Your task to perform on an android device: Go to settings Image 0: 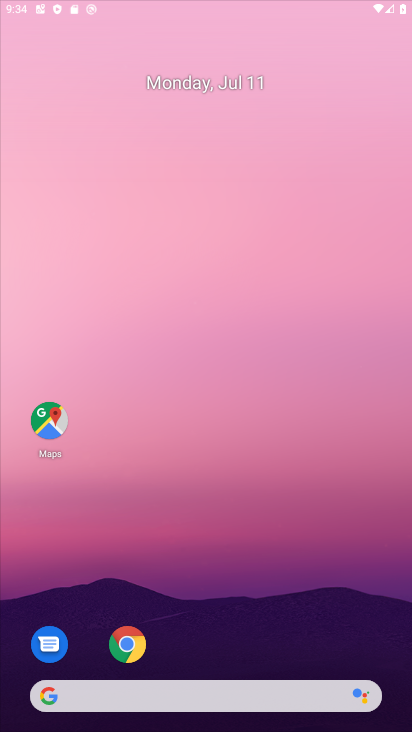
Step 0: press home button
Your task to perform on an android device: Go to settings Image 1: 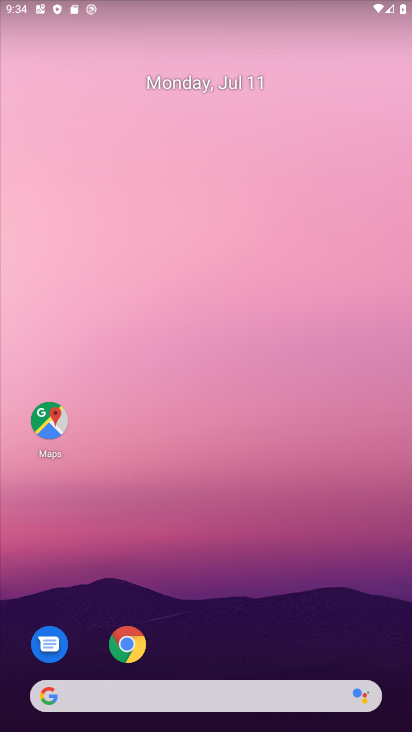
Step 1: drag from (208, 659) to (199, 113)
Your task to perform on an android device: Go to settings Image 2: 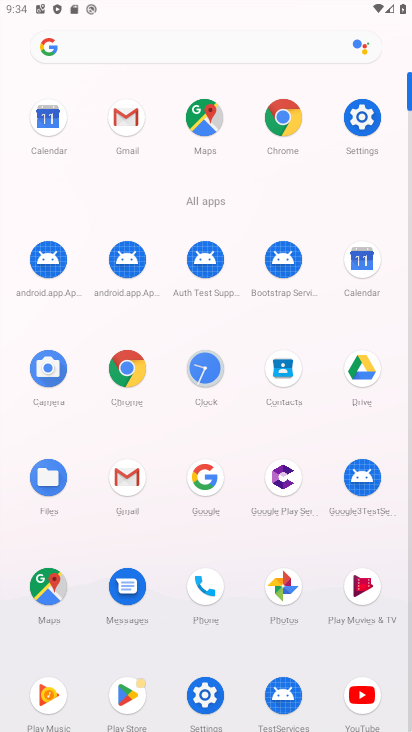
Step 2: click (362, 113)
Your task to perform on an android device: Go to settings Image 3: 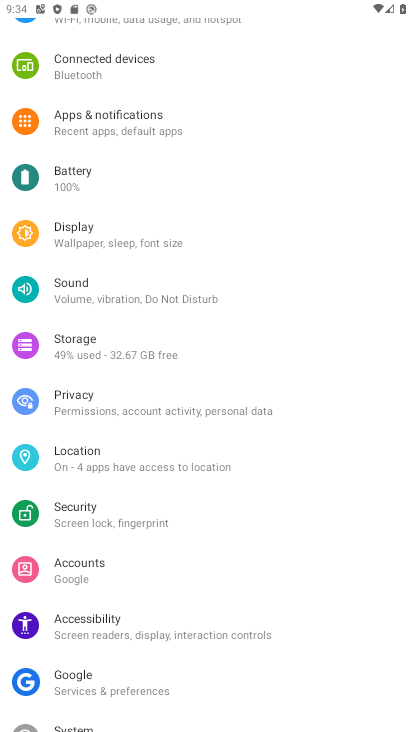
Step 3: task complete